Your task to perform on an android device: open app "Yahoo Mail" (install if not already installed) and go to login screen Image 0: 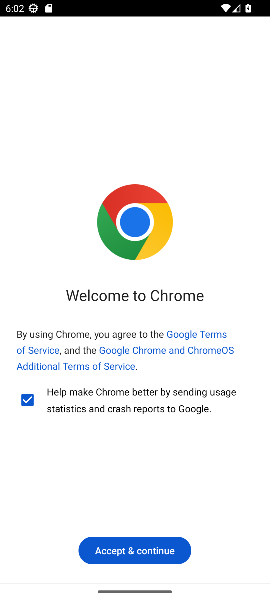
Step 0: press home button
Your task to perform on an android device: open app "Yahoo Mail" (install if not already installed) and go to login screen Image 1: 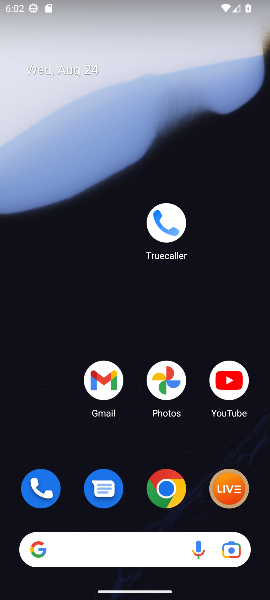
Step 1: drag from (133, 523) to (131, 21)
Your task to perform on an android device: open app "Yahoo Mail" (install if not already installed) and go to login screen Image 2: 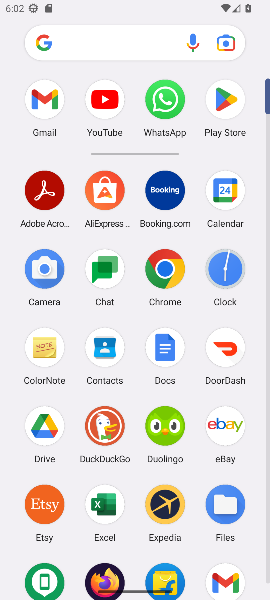
Step 2: click (230, 103)
Your task to perform on an android device: open app "Yahoo Mail" (install if not already installed) and go to login screen Image 3: 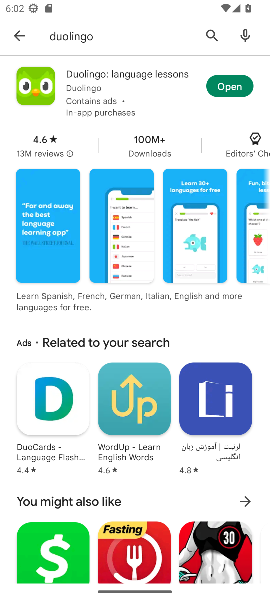
Step 3: click (214, 32)
Your task to perform on an android device: open app "Yahoo Mail" (install if not already installed) and go to login screen Image 4: 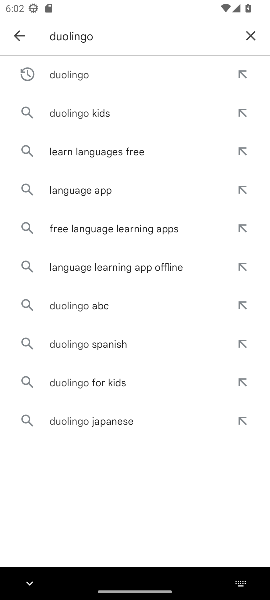
Step 4: click (243, 34)
Your task to perform on an android device: open app "Yahoo Mail" (install if not already installed) and go to login screen Image 5: 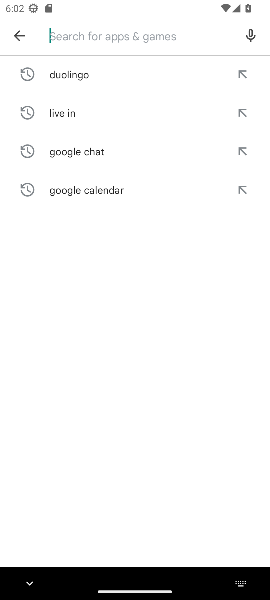
Step 5: type "yahoomail"
Your task to perform on an android device: open app "Yahoo Mail" (install if not already installed) and go to login screen Image 6: 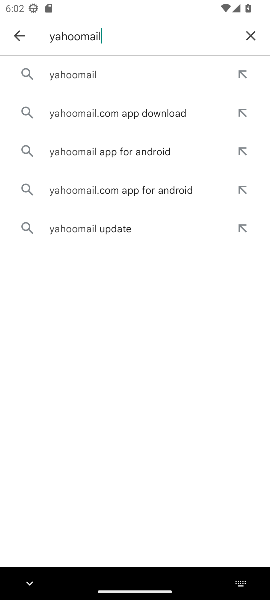
Step 6: click (127, 76)
Your task to perform on an android device: open app "Yahoo Mail" (install if not already installed) and go to login screen Image 7: 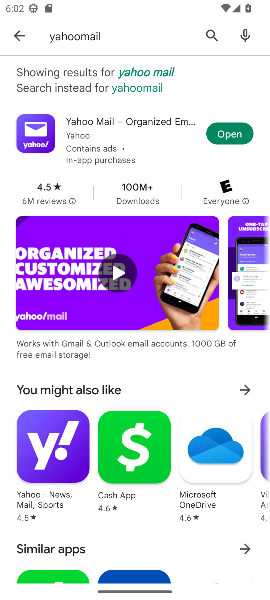
Step 7: click (225, 129)
Your task to perform on an android device: open app "Yahoo Mail" (install if not already installed) and go to login screen Image 8: 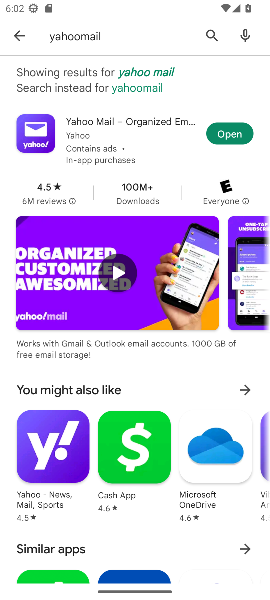
Step 8: task complete